Your task to perform on an android device: set default search engine in the chrome app Image 0: 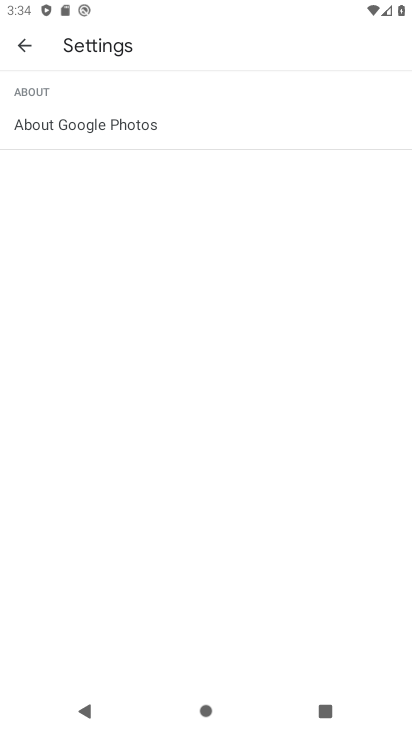
Step 0: press back button
Your task to perform on an android device: set default search engine in the chrome app Image 1: 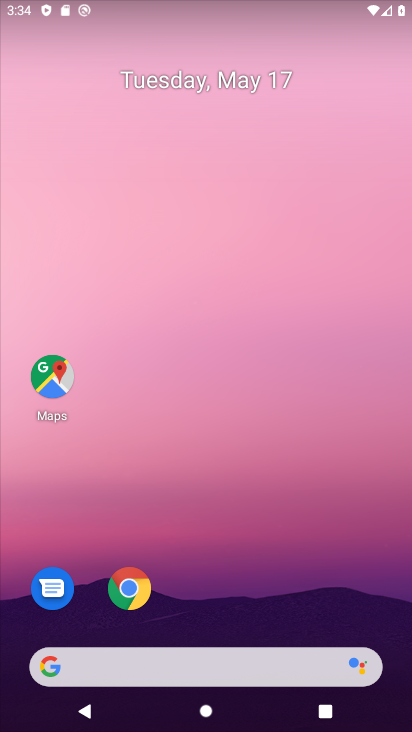
Step 1: click (129, 587)
Your task to perform on an android device: set default search engine in the chrome app Image 2: 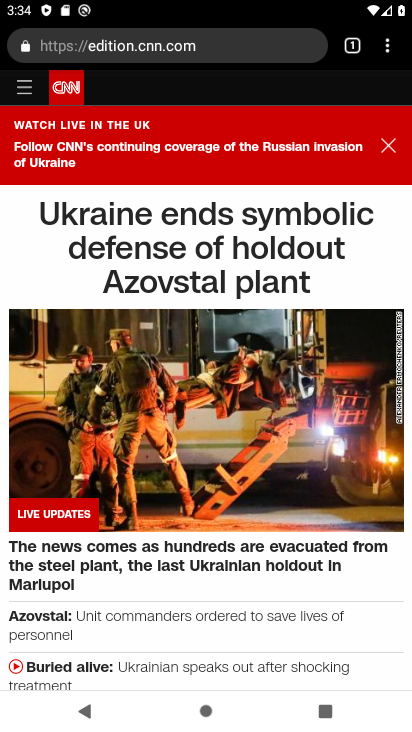
Step 2: click (389, 46)
Your task to perform on an android device: set default search engine in the chrome app Image 3: 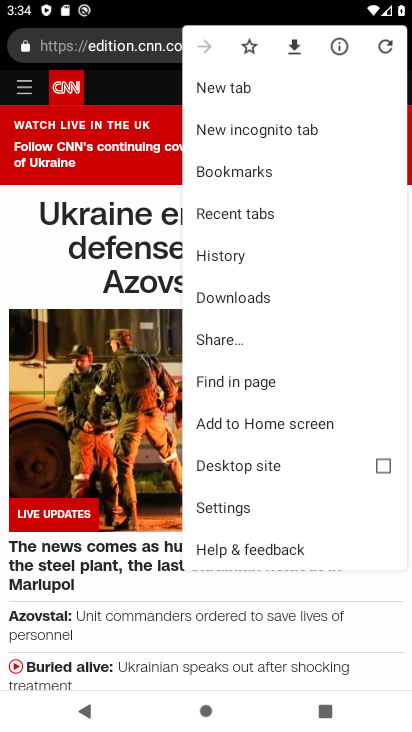
Step 3: drag from (247, 358) to (264, 238)
Your task to perform on an android device: set default search engine in the chrome app Image 4: 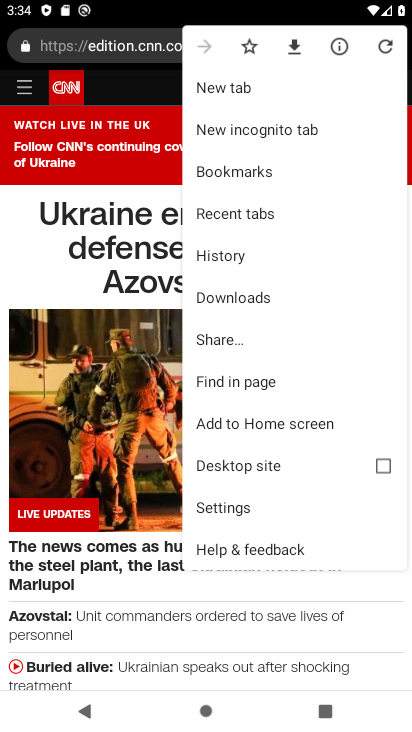
Step 4: click (231, 505)
Your task to perform on an android device: set default search engine in the chrome app Image 5: 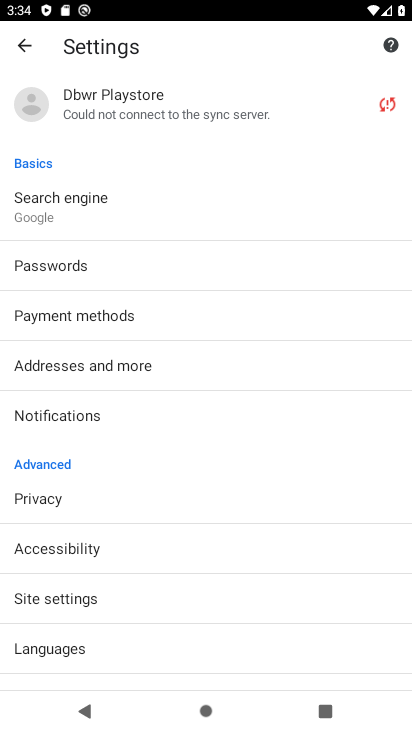
Step 5: click (89, 198)
Your task to perform on an android device: set default search engine in the chrome app Image 6: 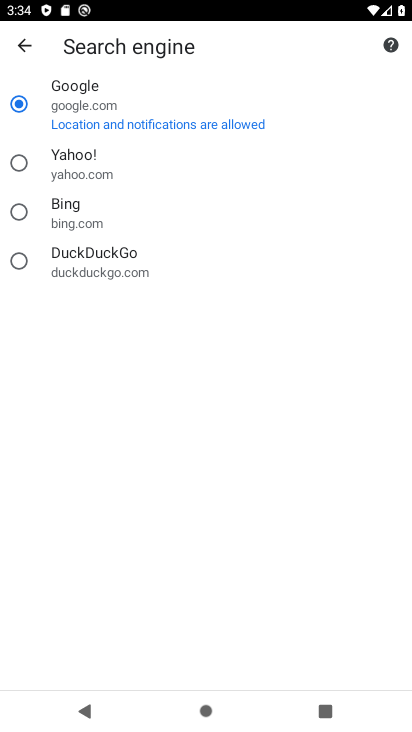
Step 6: click (20, 211)
Your task to perform on an android device: set default search engine in the chrome app Image 7: 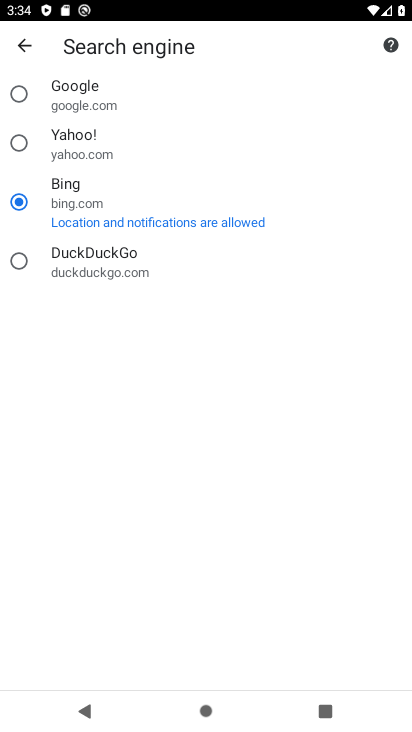
Step 7: task complete